Your task to perform on an android device: Do I have any events this weekend? Image 0: 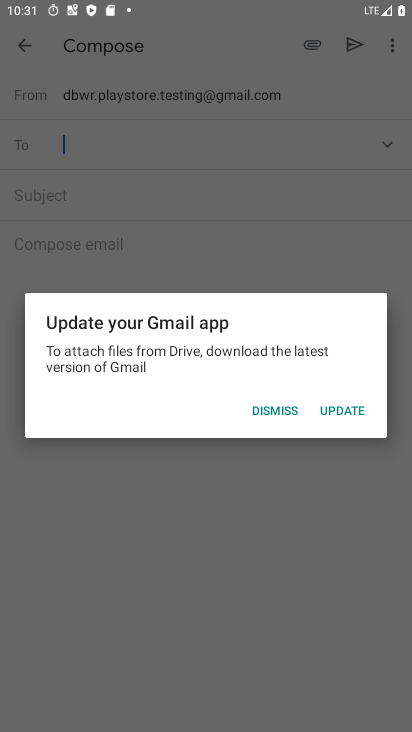
Step 0: press home button
Your task to perform on an android device: Do I have any events this weekend? Image 1: 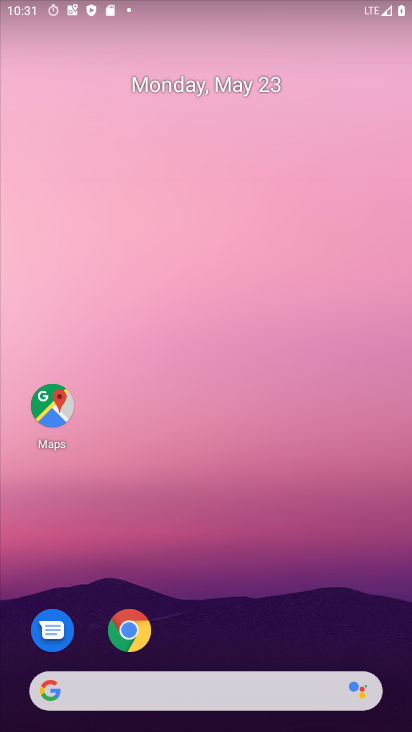
Step 1: drag from (256, 657) to (239, 0)
Your task to perform on an android device: Do I have any events this weekend? Image 2: 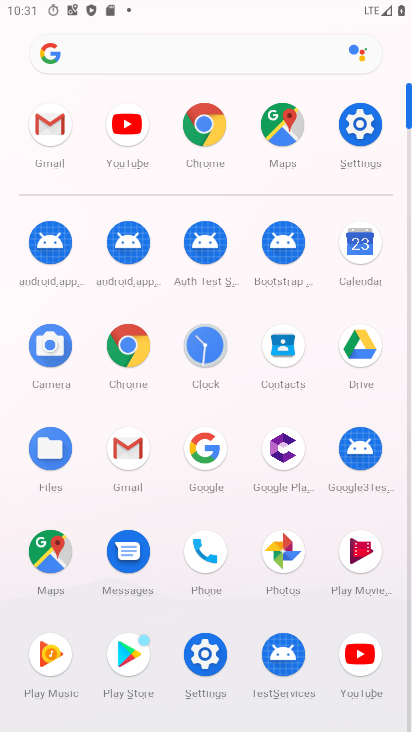
Step 2: click (356, 248)
Your task to perform on an android device: Do I have any events this weekend? Image 3: 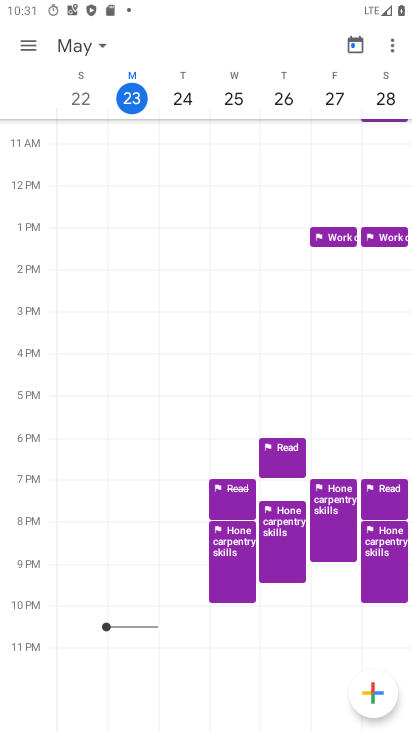
Step 3: click (379, 500)
Your task to perform on an android device: Do I have any events this weekend? Image 4: 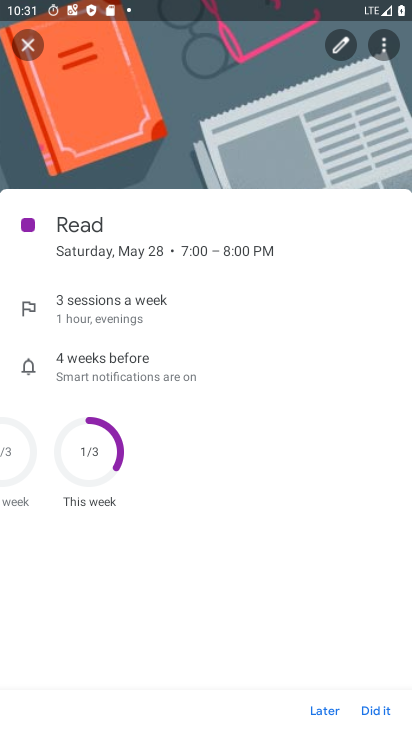
Step 4: task complete